Your task to perform on an android device: Search for sushi restaurants on Maps Image 0: 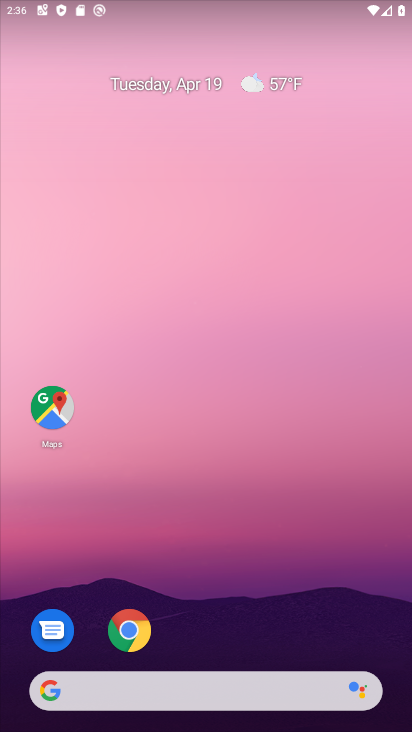
Step 0: click (54, 408)
Your task to perform on an android device: Search for sushi restaurants on Maps Image 1: 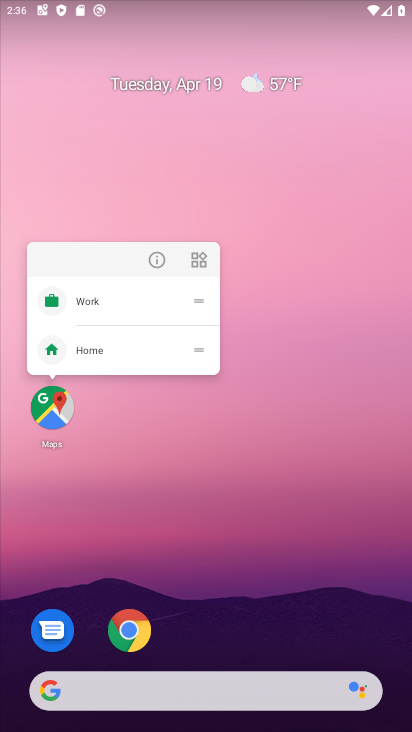
Step 1: click (54, 408)
Your task to perform on an android device: Search for sushi restaurants on Maps Image 2: 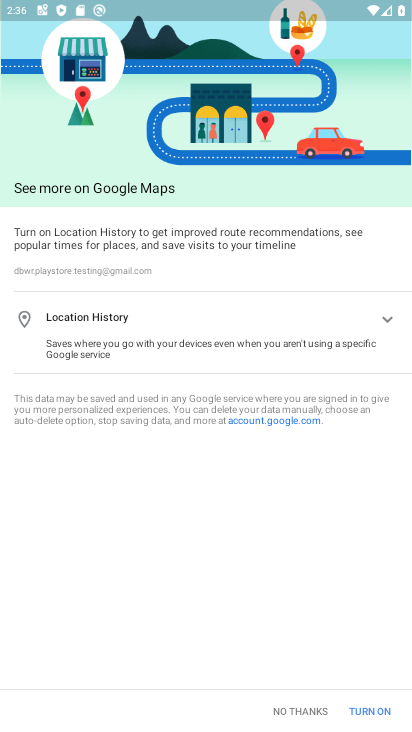
Step 2: click (361, 704)
Your task to perform on an android device: Search for sushi restaurants on Maps Image 3: 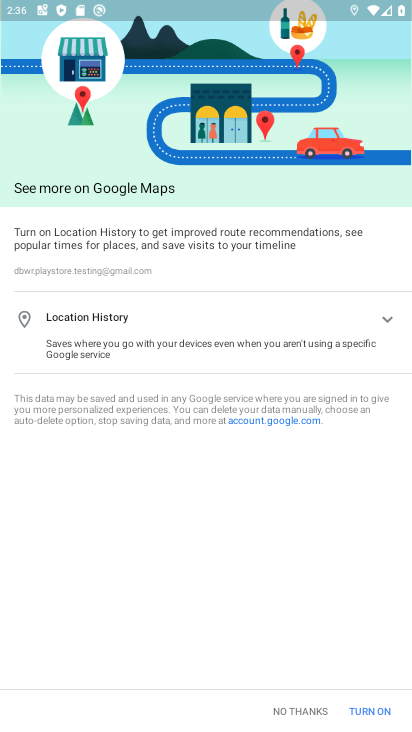
Step 3: click (366, 704)
Your task to perform on an android device: Search for sushi restaurants on Maps Image 4: 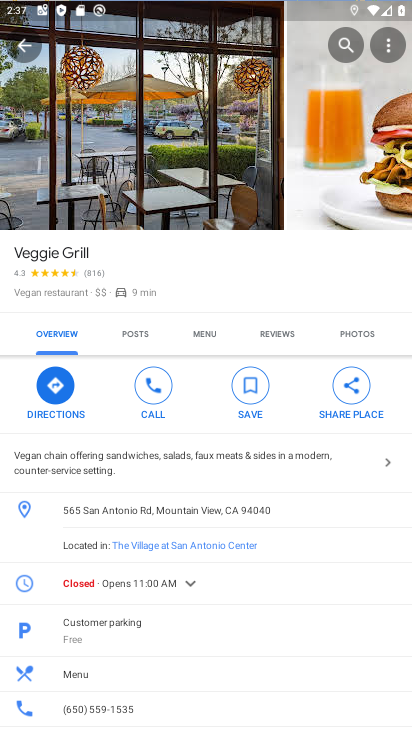
Step 4: task complete